Your task to perform on an android device: change notifications settings Image 0: 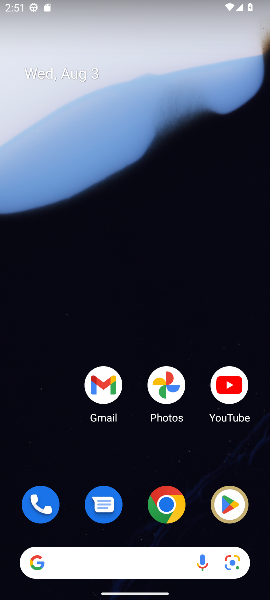
Step 0: drag from (199, 472) to (207, 45)
Your task to perform on an android device: change notifications settings Image 1: 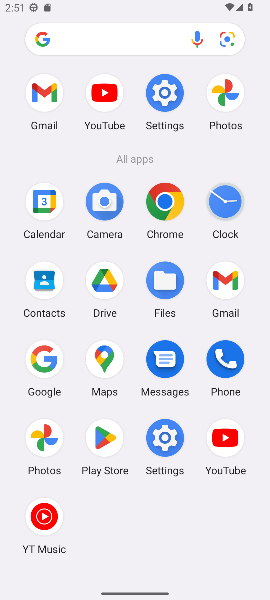
Step 1: click (172, 92)
Your task to perform on an android device: change notifications settings Image 2: 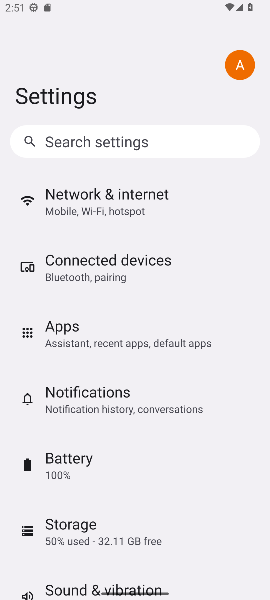
Step 2: click (106, 406)
Your task to perform on an android device: change notifications settings Image 3: 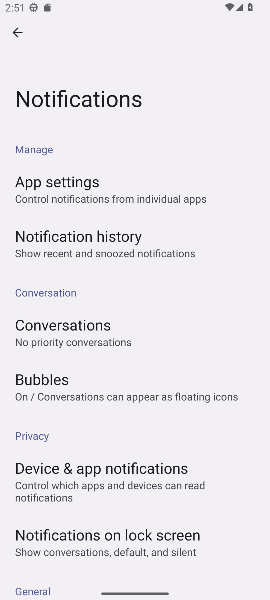
Step 3: task complete